Your task to perform on an android device: Go to CNN.com Image 0: 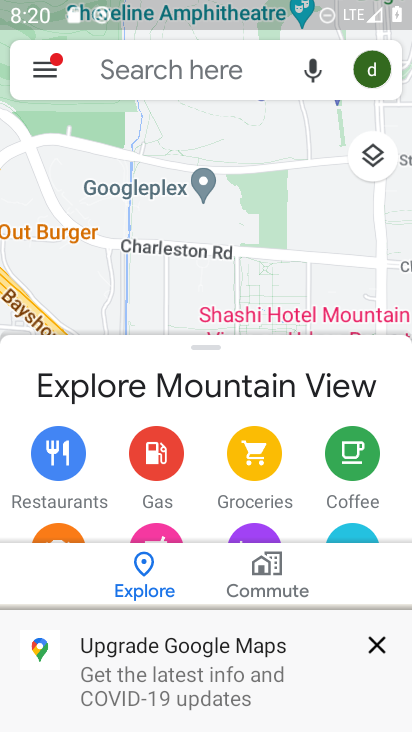
Step 0: press home button
Your task to perform on an android device: Go to CNN.com Image 1: 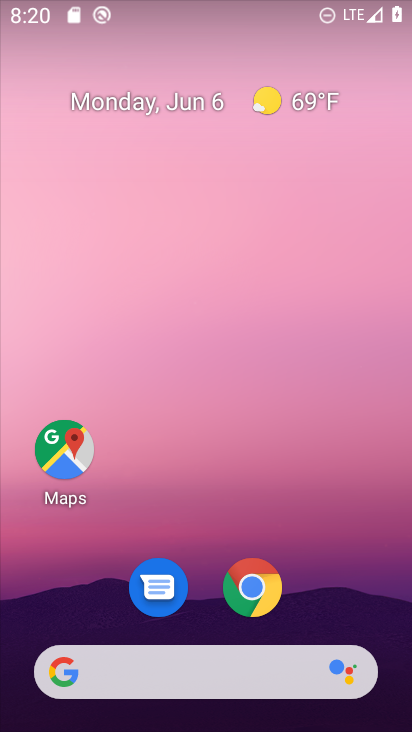
Step 1: click (251, 588)
Your task to perform on an android device: Go to CNN.com Image 2: 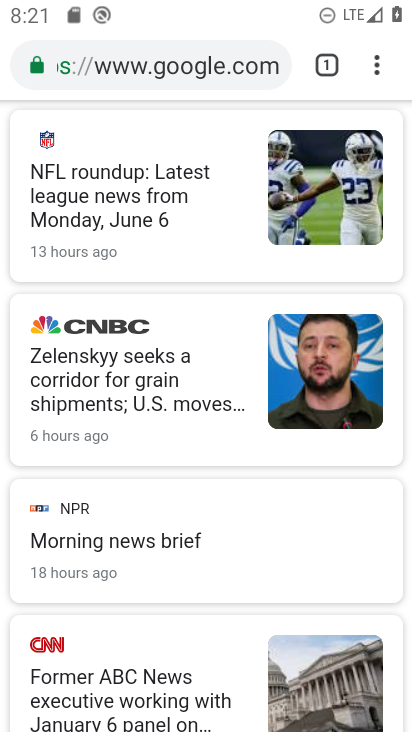
Step 2: click (222, 68)
Your task to perform on an android device: Go to CNN.com Image 3: 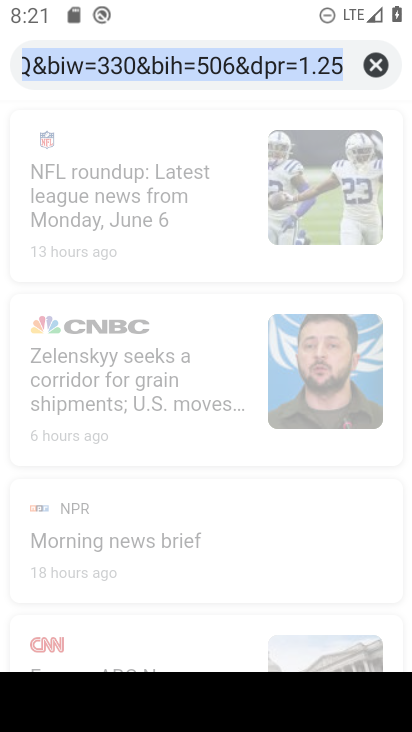
Step 3: type "cnnn.com"
Your task to perform on an android device: Go to CNN.com Image 4: 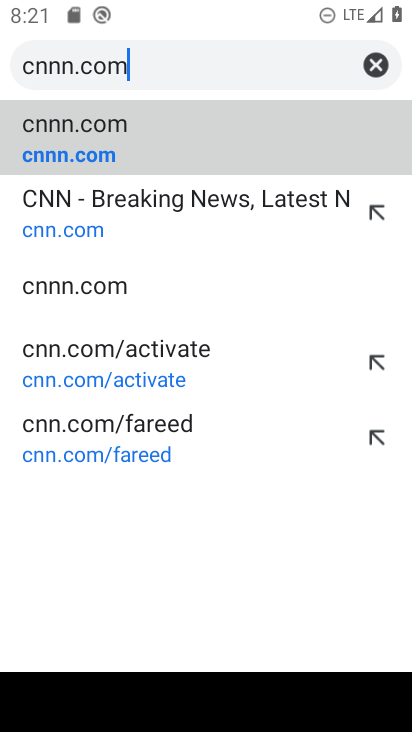
Step 4: click (37, 228)
Your task to perform on an android device: Go to CNN.com Image 5: 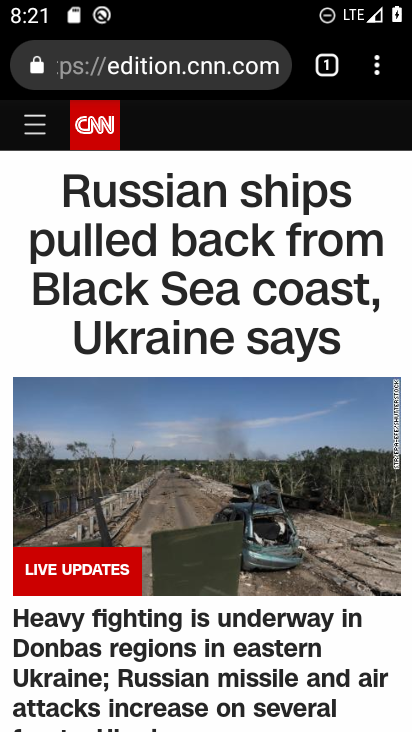
Step 5: task complete